Your task to perform on an android device: Open calendar and show me the fourth week of next month Image 0: 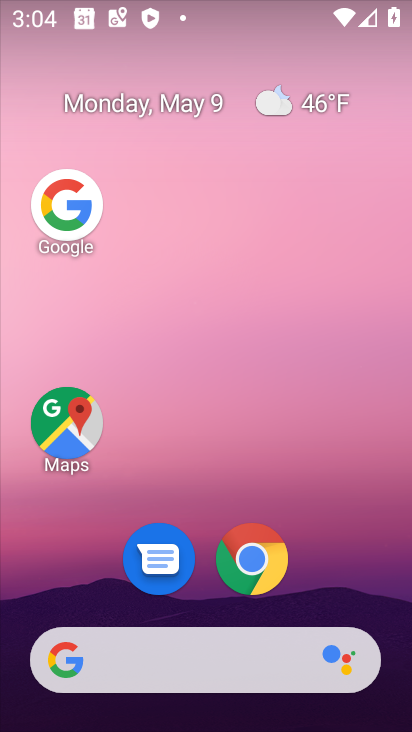
Step 0: drag from (350, 539) to (334, 128)
Your task to perform on an android device: Open calendar and show me the fourth week of next month Image 1: 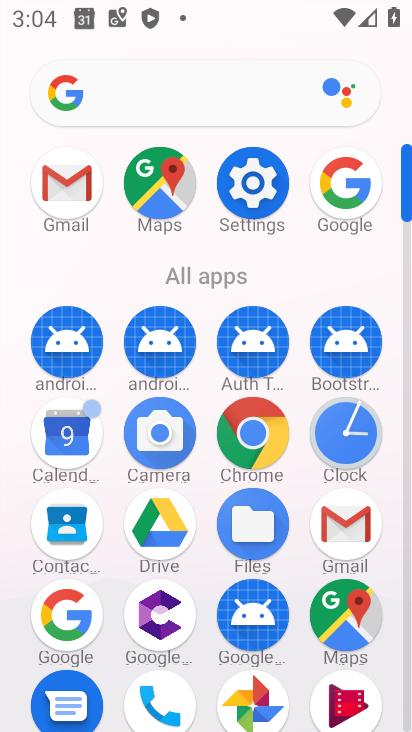
Step 1: click (67, 444)
Your task to perform on an android device: Open calendar and show me the fourth week of next month Image 2: 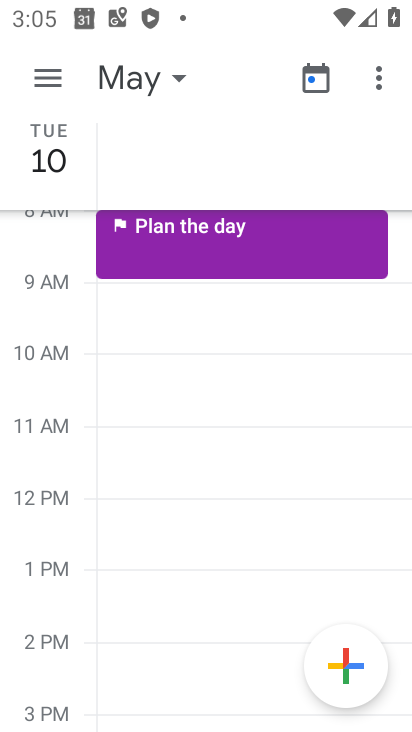
Step 2: click (144, 83)
Your task to perform on an android device: Open calendar and show me the fourth week of next month Image 3: 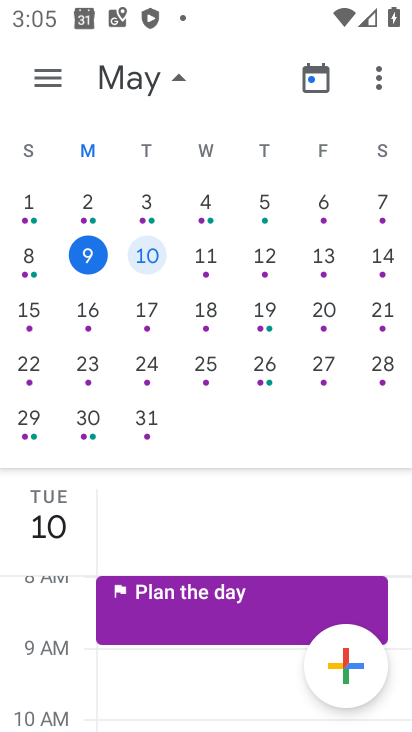
Step 3: drag from (381, 278) to (14, 50)
Your task to perform on an android device: Open calendar and show me the fourth week of next month Image 4: 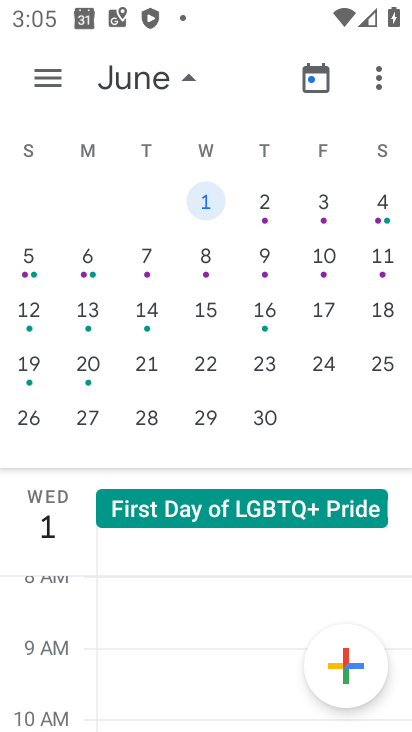
Step 4: click (47, 78)
Your task to perform on an android device: Open calendar and show me the fourth week of next month Image 5: 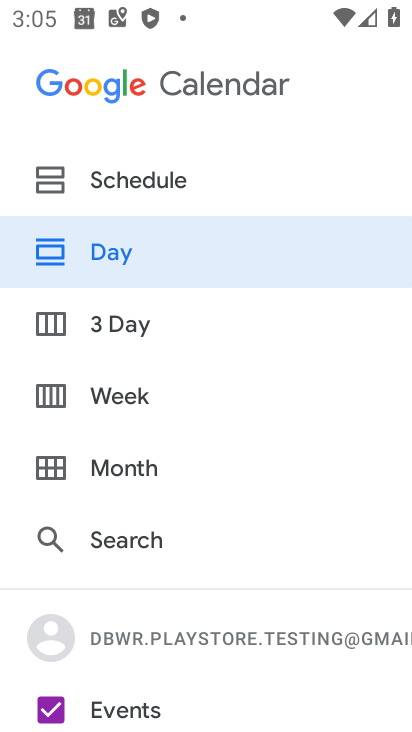
Step 5: click (147, 388)
Your task to perform on an android device: Open calendar and show me the fourth week of next month Image 6: 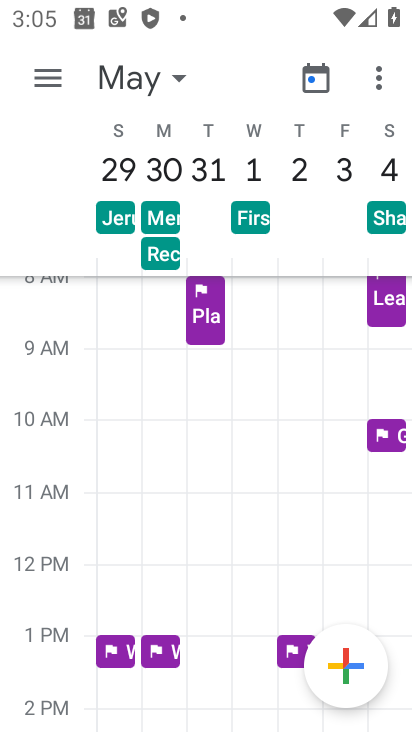
Step 6: task complete